Your task to perform on an android device: Open calendar and show me the third week of next month Image 0: 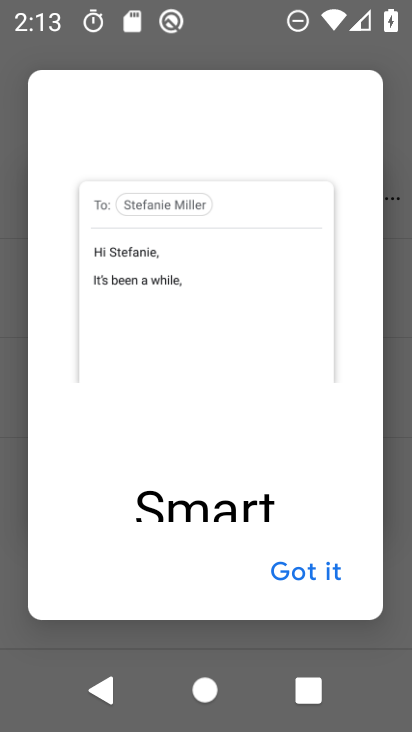
Step 0: press home button
Your task to perform on an android device: Open calendar and show me the third week of next month Image 1: 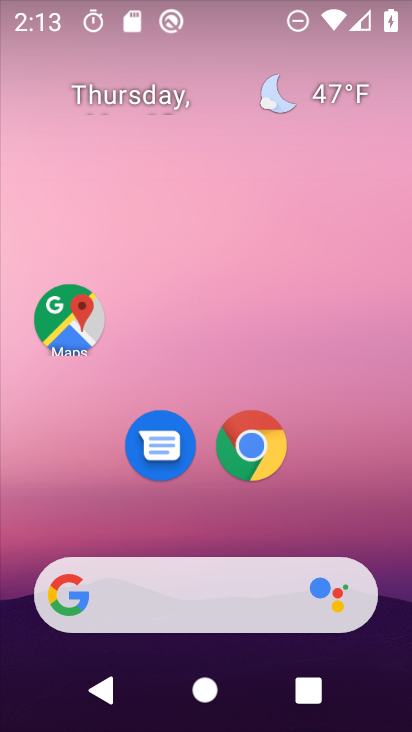
Step 1: drag from (213, 524) to (227, 260)
Your task to perform on an android device: Open calendar and show me the third week of next month Image 2: 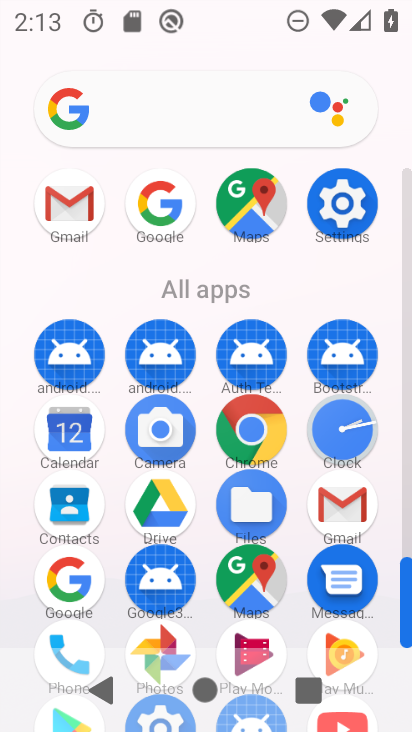
Step 2: click (78, 439)
Your task to perform on an android device: Open calendar and show me the third week of next month Image 3: 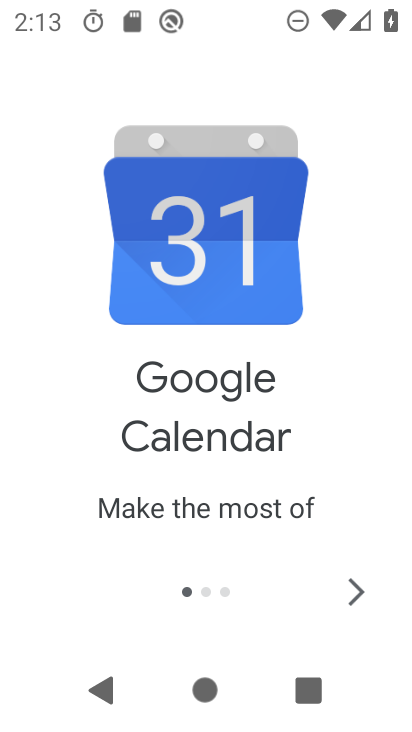
Step 3: click (357, 598)
Your task to perform on an android device: Open calendar and show me the third week of next month Image 4: 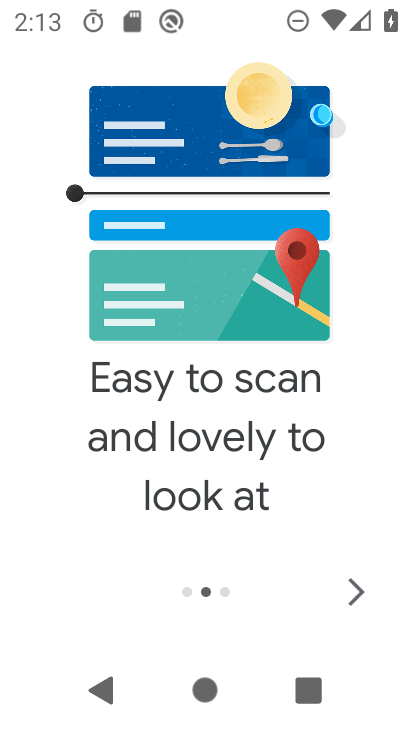
Step 4: click (357, 598)
Your task to perform on an android device: Open calendar and show me the third week of next month Image 5: 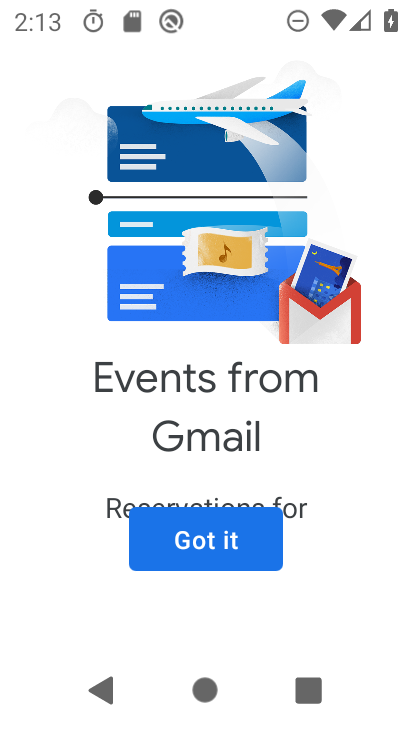
Step 5: click (357, 598)
Your task to perform on an android device: Open calendar and show me the third week of next month Image 6: 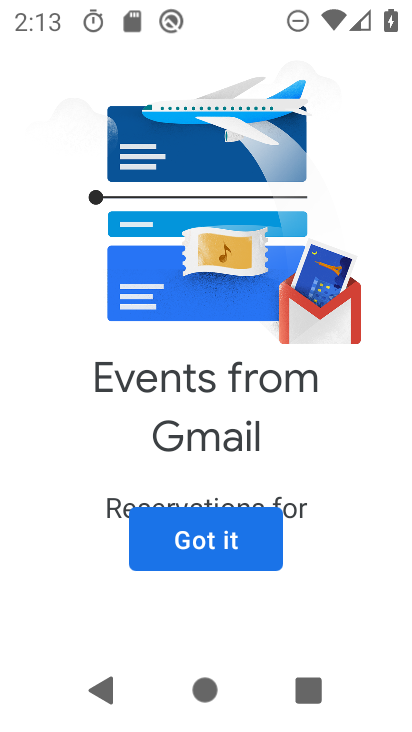
Step 6: click (259, 544)
Your task to perform on an android device: Open calendar and show me the third week of next month Image 7: 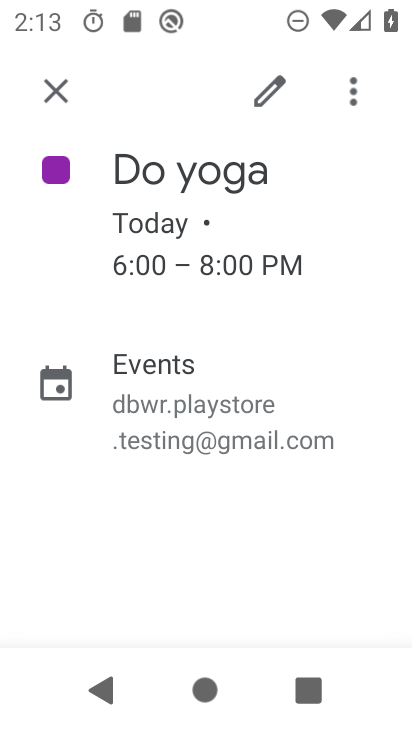
Step 7: click (50, 86)
Your task to perform on an android device: Open calendar and show me the third week of next month Image 8: 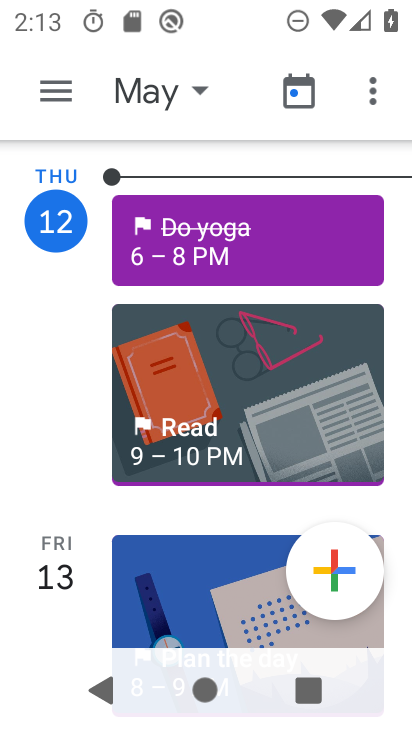
Step 8: click (198, 88)
Your task to perform on an android device: Open calendar and show me the third week of next month Image 9: 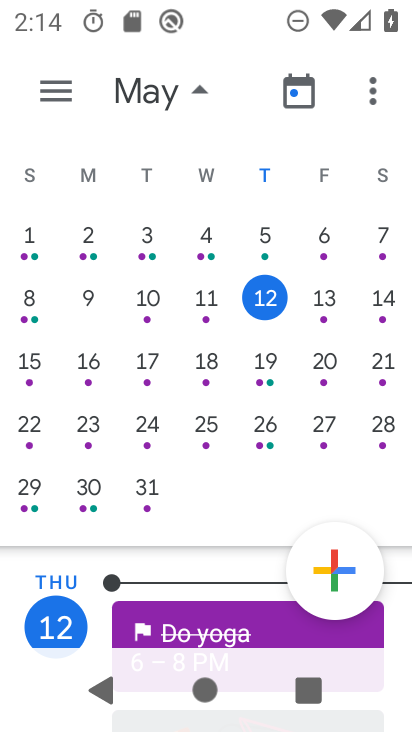
Step 9: drag from (346, 331) to (2, 296)
Your task to perform on an android device: Open calendar and show me the third week of next month Image 10: 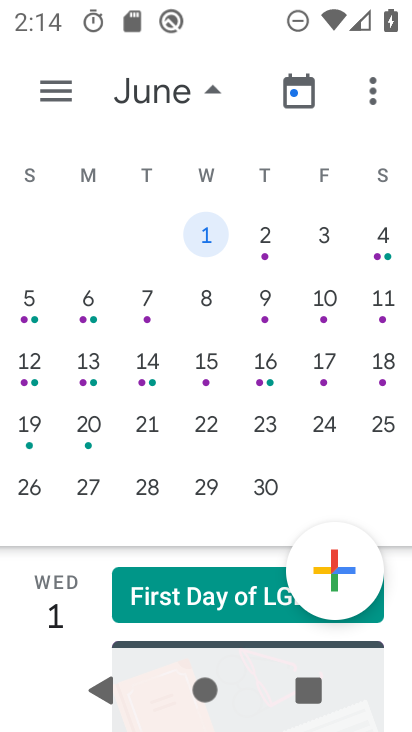
Step 10: click (199, 238)
Your task to perform on an android device: Open calendar and show me the third week of next month Image 11: 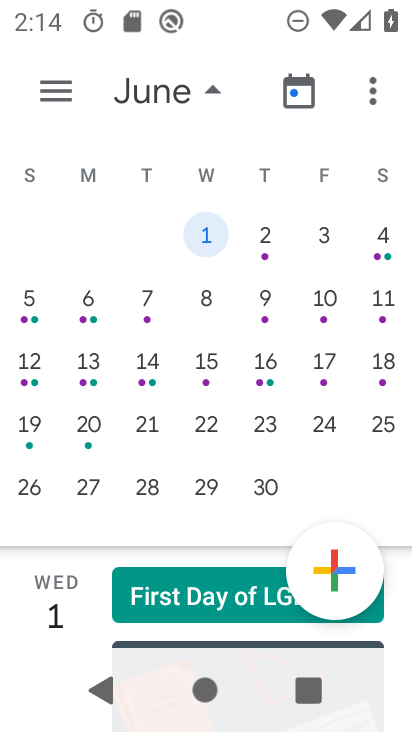
Step 11: click (80, 375)
Your task to perform on an android device: Open calendar and show me the third week of next month Image 12: 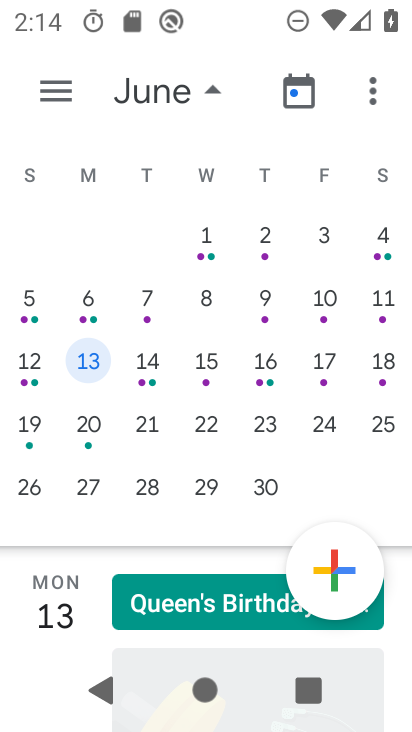
Step 12: task complete